Your task to perform on an android device: turn on location history Image 0: 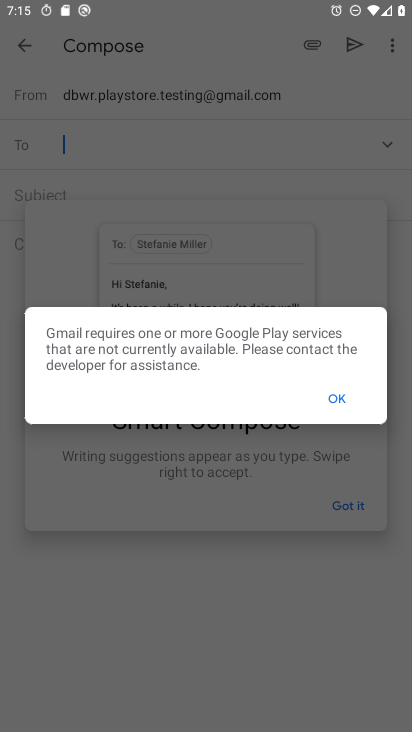
Step 0: press home button
Your task to perform on an android device: turn on location history Image 1: 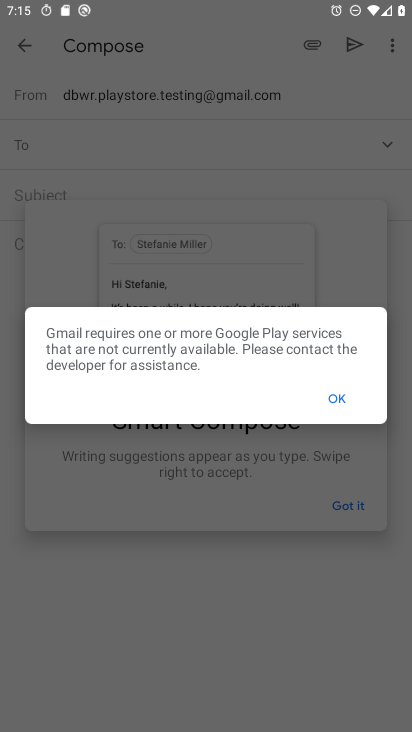
Step 1: drag from (342, 637) to (284, 28)
Your task to perform on an android device: turn on location history Image 2: 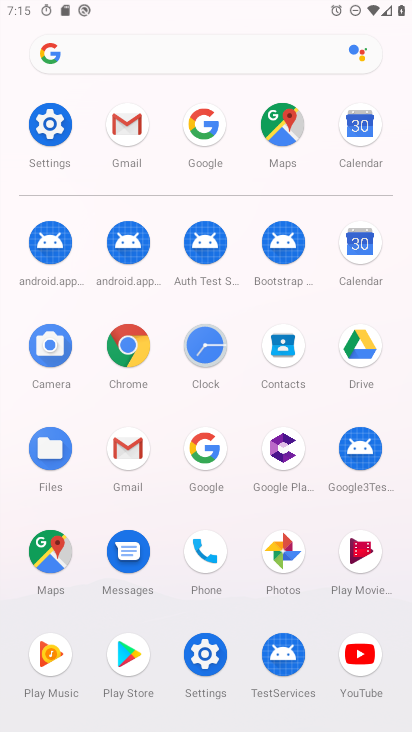
Step 2: click (45, 138)
Your task to perform on an android device: turn on location history Image 3: 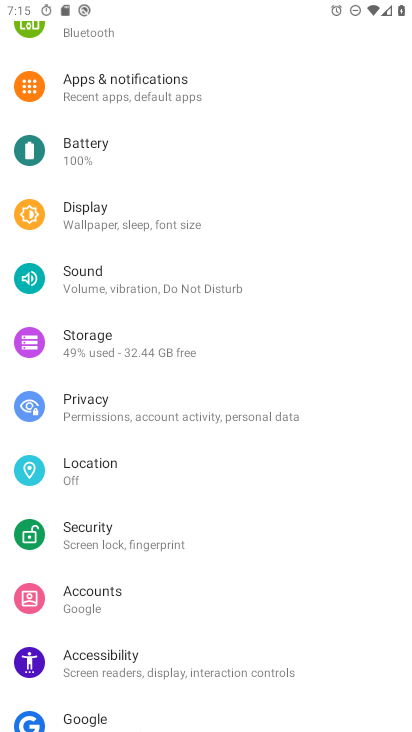
Step 3: click (101, 471)
Your task to perform on an android device: turn on location history Image 4: 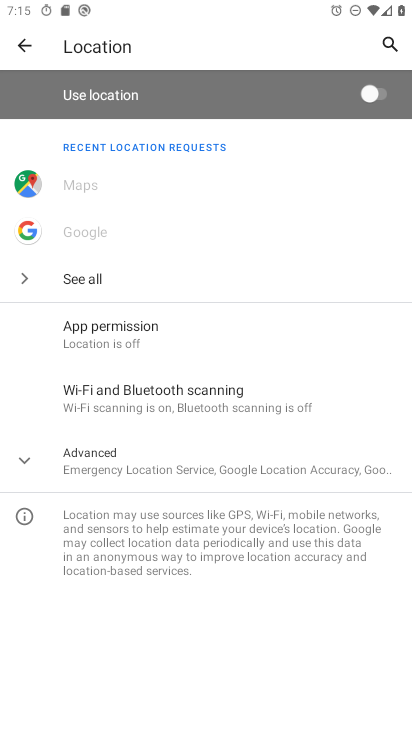
Step 4: click (110, 474)
Your task to perform on an android device: turn on location history Image 5: 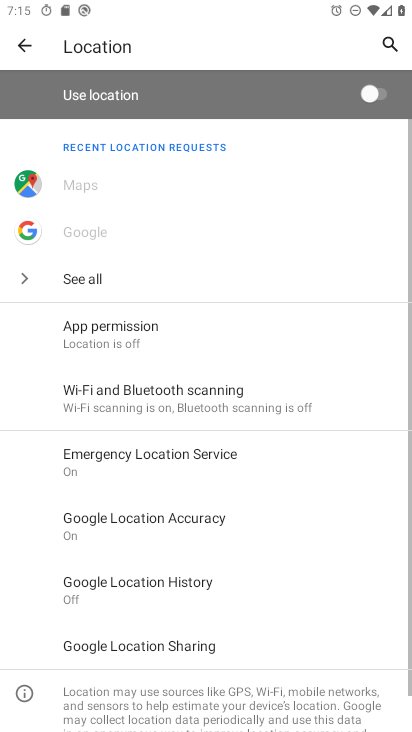
Step 5: click (219, 576)
Your task to perform on an android device: turn on location history Image 6: 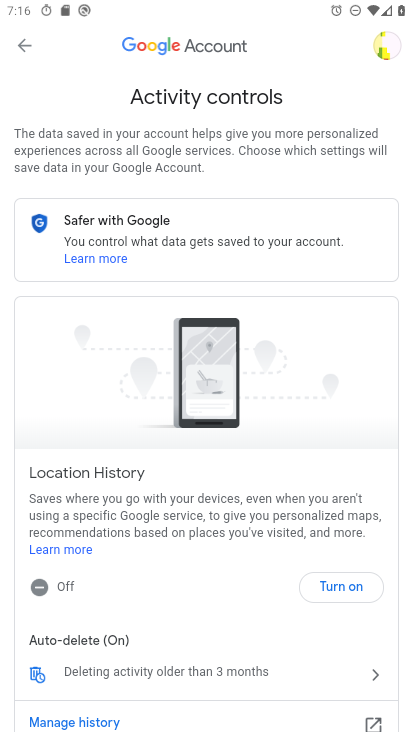
Step 6: task complete